Your task to perform on an android device: open app "PUBG MOBILE" (install if not already installed) Image 0: 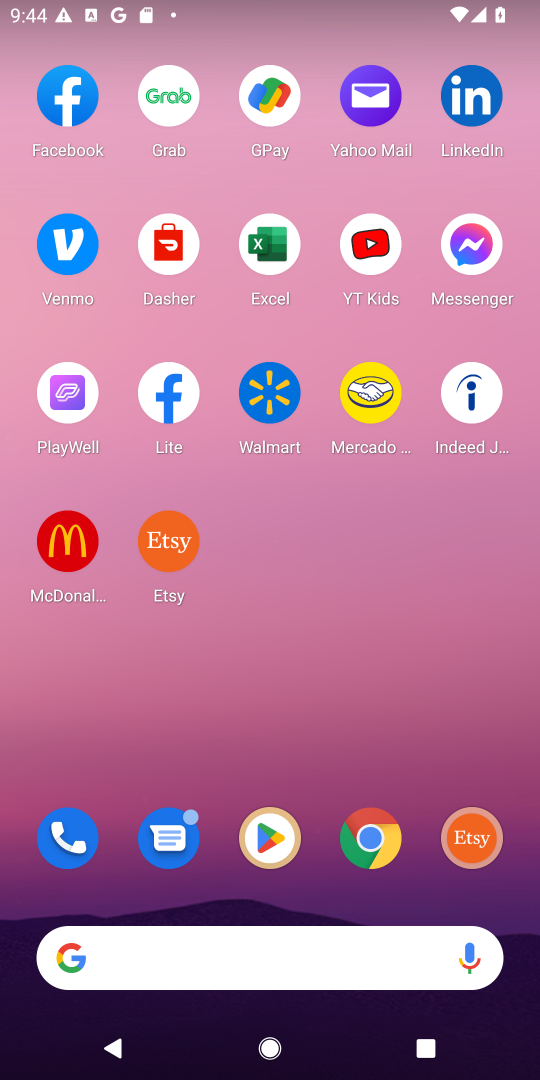
Step 0: click (273, 862)
Your task to perform on an android device: open app "PUBG MOBILE" (install if not already installed) Image 1: 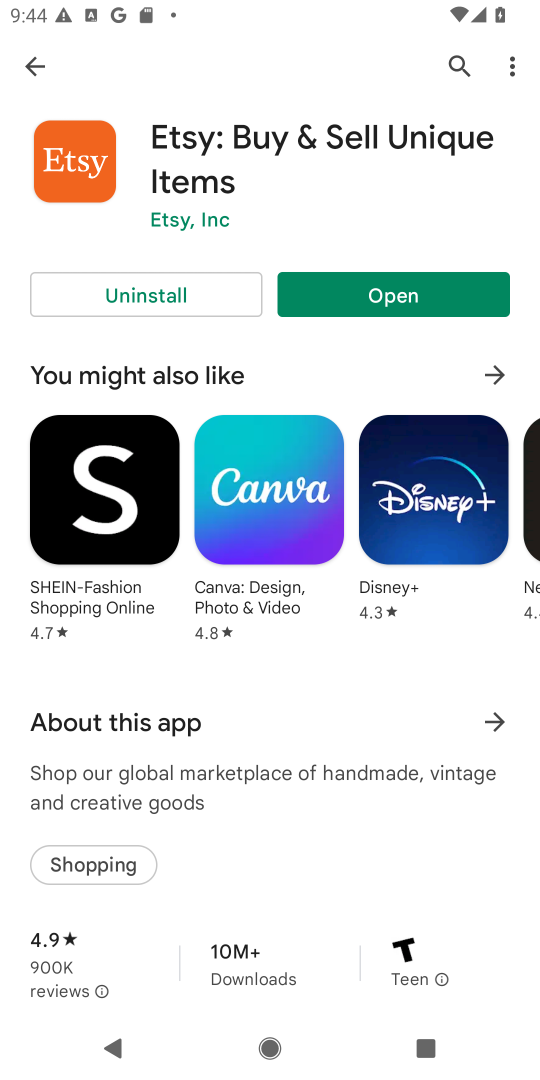
Step 1: click (462, 67)
Your task to perform on an android device: open app "PUBG MOBILE" (install if not already installed) Image 2: 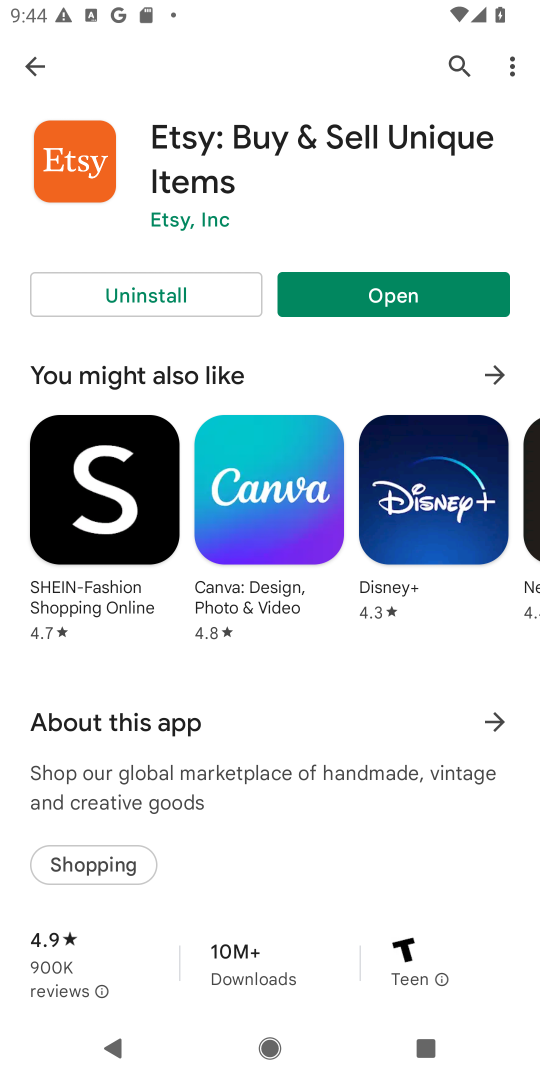
Step 2: click (457, 65)
Your task to perform on an android device: open app "PUBG MOBILE" (install if not already installed) Image 3: 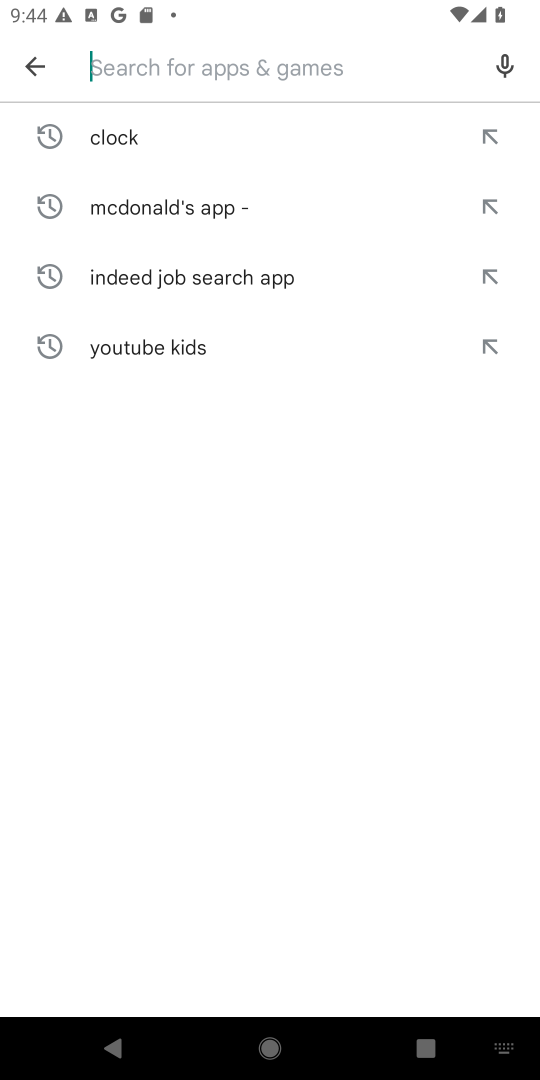
Step 3: type "PUBG MOBILE"
Your task to perform on an android device: open app "PUBG MOBILE" (install if not already installed) Image 4: 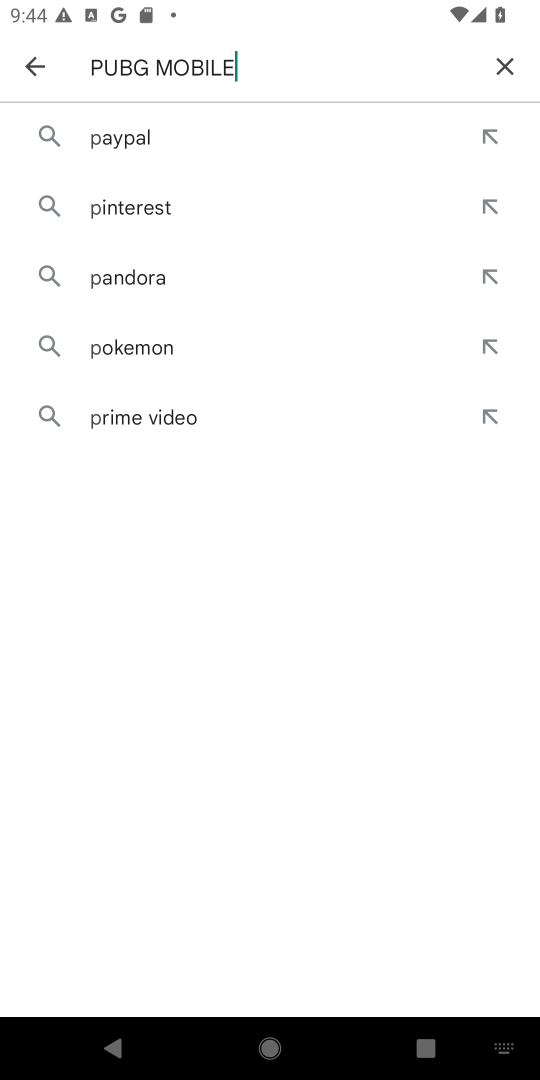
Step 4: type ""
Your task to perform on an android device: open app "PUBG MOBILE" (install if not already installed) Image 5: 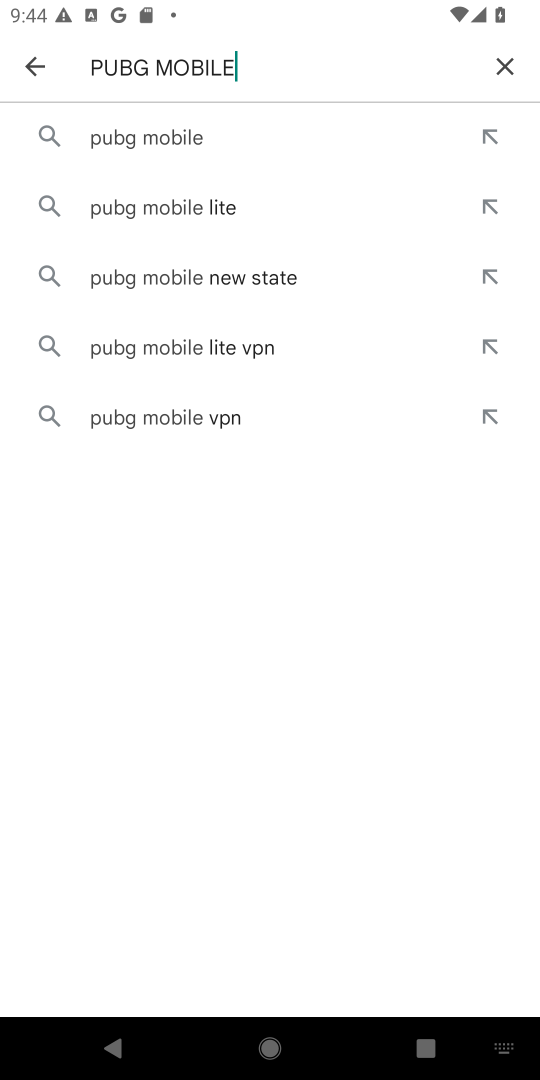
Step 5: click (181, 135)
Your task to perform on an android device: open app "PUBG MOBILE" (install if not already installed) Image 6: 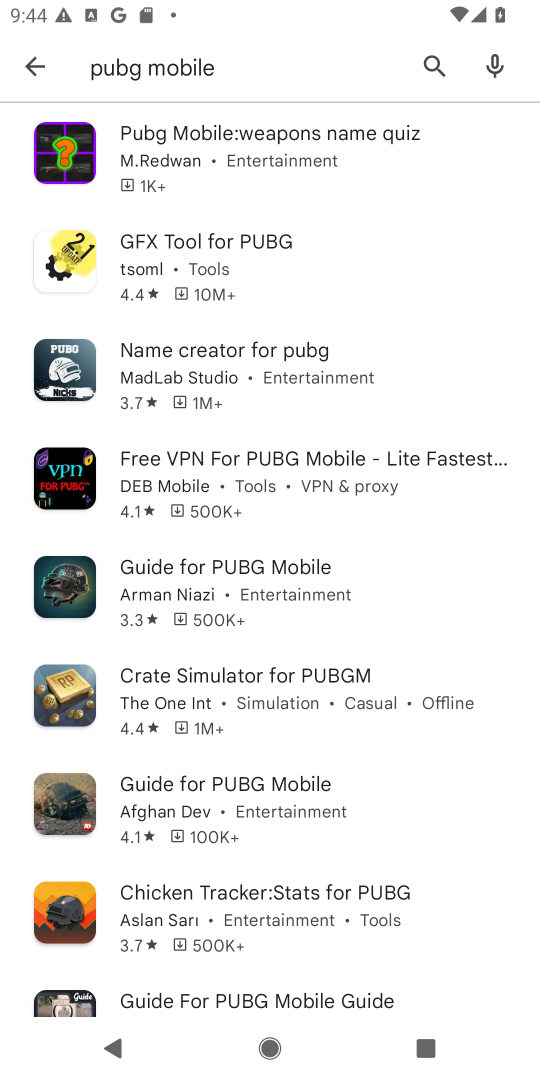
Step 6: task complete